Your task to perform on an android device: turn off location history Image 0: 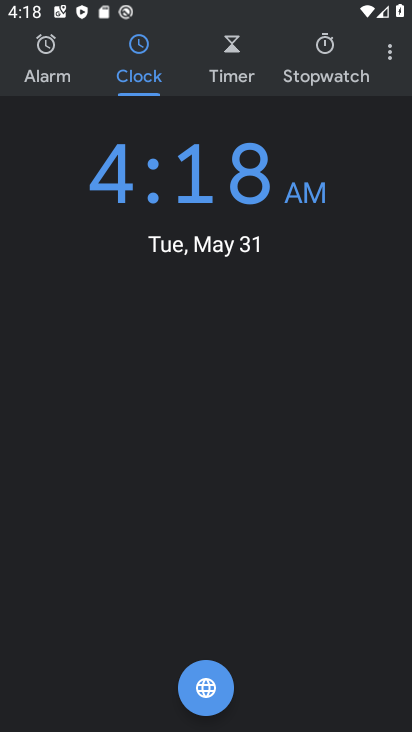
Step 0: press back button
Your task to perform on an android device: turn off location history Image 1: 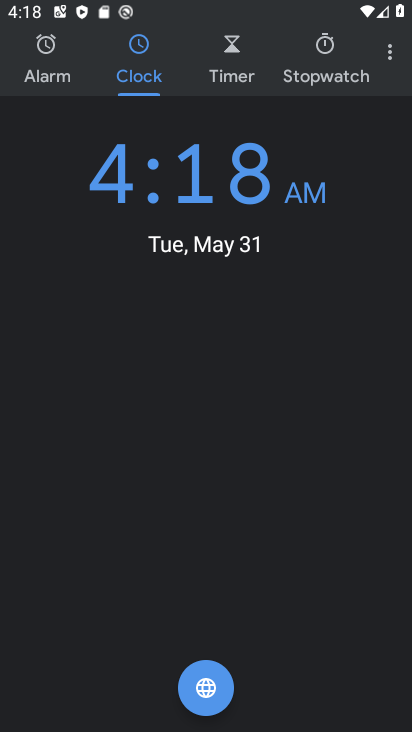
Step 1: press back button
Your task to perform on an android device: turn off location history Image 2: 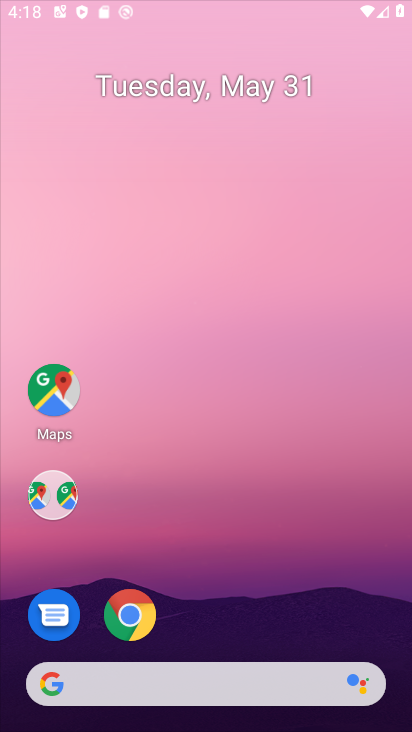
Step 2: press back button
Your task to perform on an android device: turn off location history Image 3: 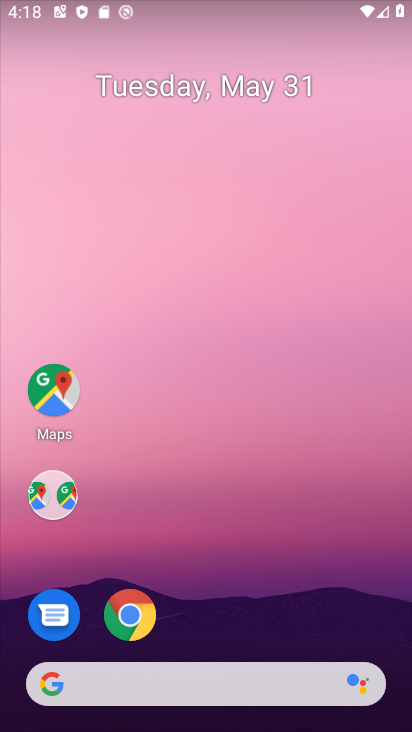
Step 3: drag from (258, 694) to (186, 209)
Your task to perform on an android device: turn off location history Image 4: 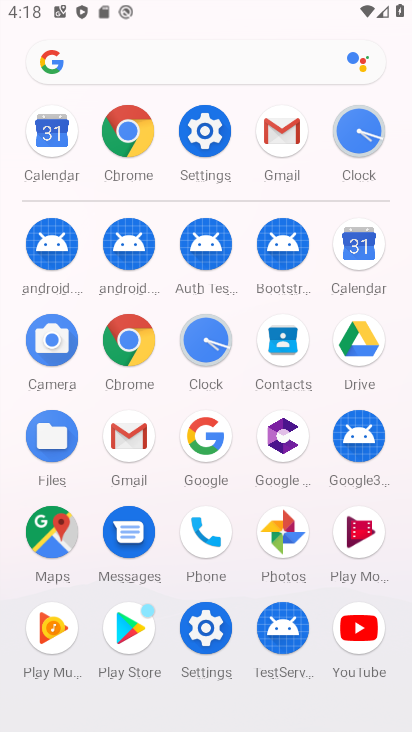
Step 4: click (192, 135)
Your task to perform on an android device: turn off location history Image 5: 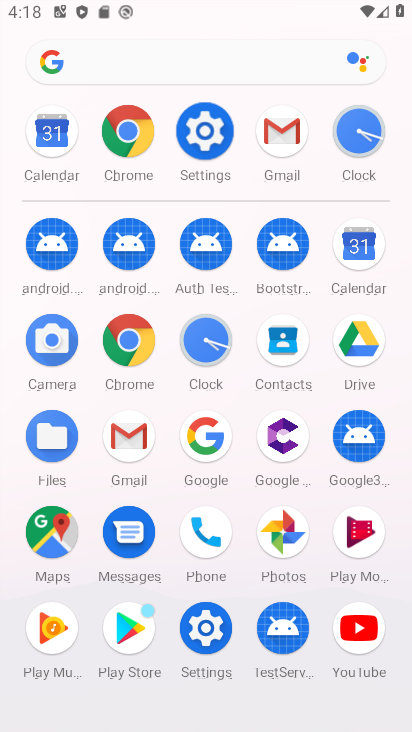
Step 5: click (203, 144)
Your task to perform on an android device: turn off location history Image 6: 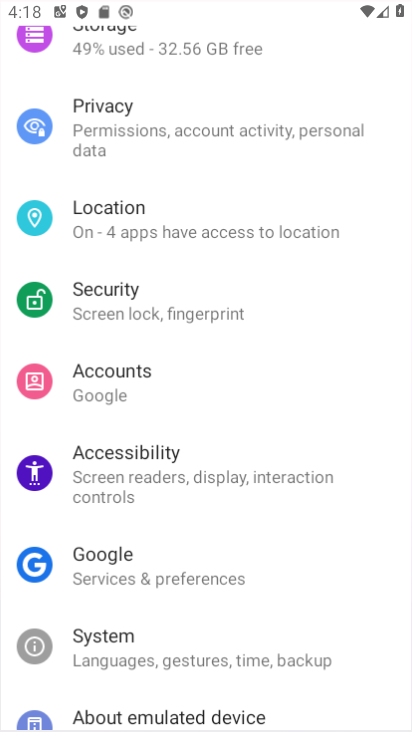
Step 6: click (202, 149)
Your task to perform on an android device: turn off location history Image 7: 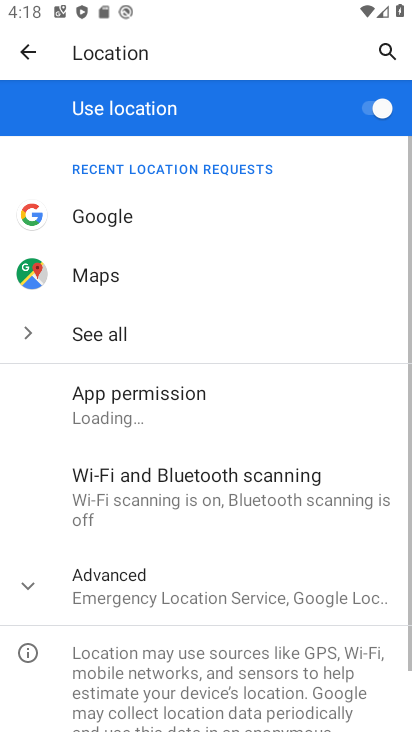
Step 7: click (27, 45)
Your task to perform on an android device: turn off location history Image 8: 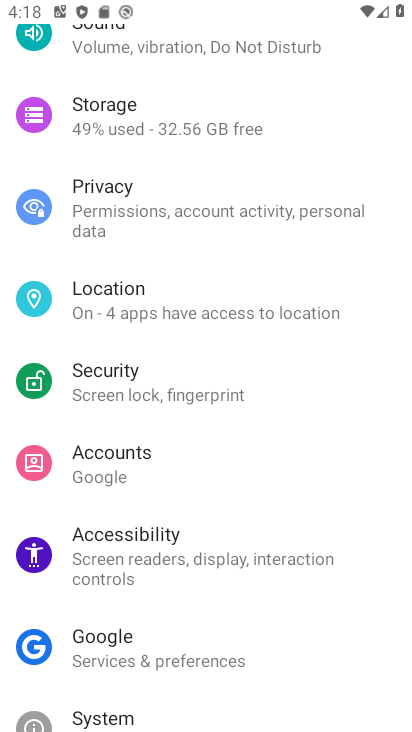
Step 8: drag from (236, 531) to (162, 122)
Your task to perform on an android device: turn off location history Image 9: 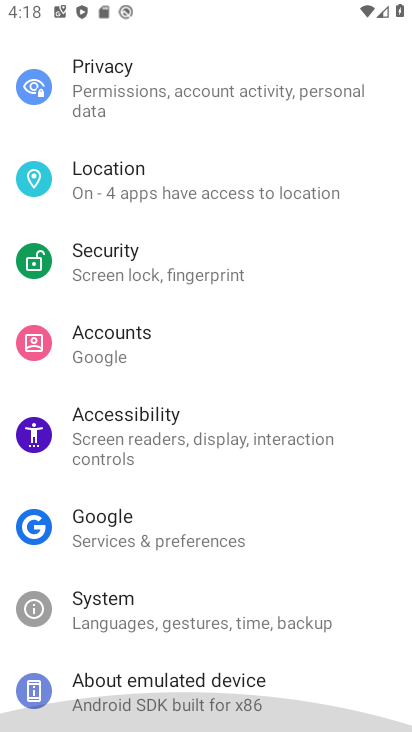
Step 9: drag from (203, 510) to (129, 164)
Your task to perform on an android device: turn off location history Image 10: 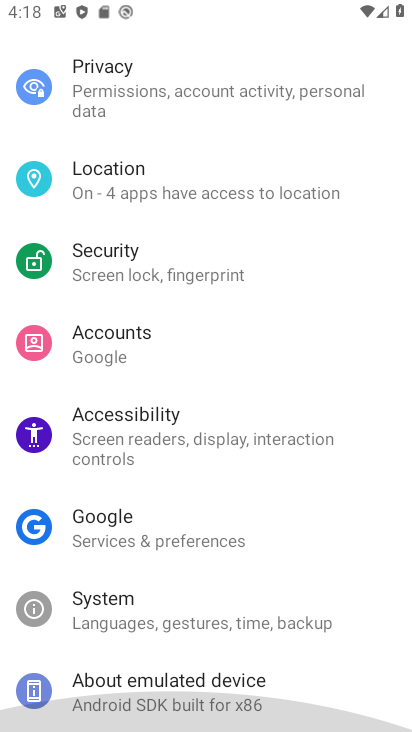
Step 10: drag from (146, 466) to (106, 116)
Your task to perform on an android device: turn off location history Image 11: 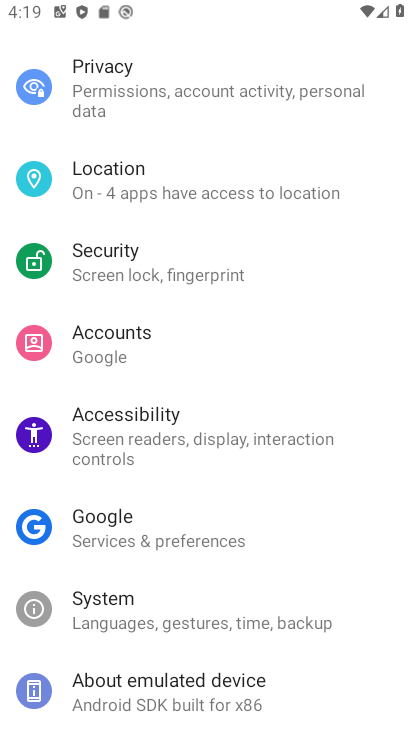
Step 11: click (112, 179)
Your task to perform on an android device: turn off location history Image 12: 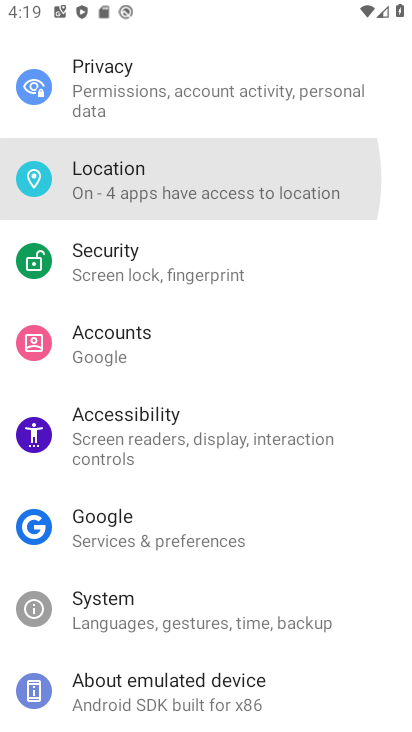
Step 12: click (113, 182)
Your task to perform on an android device: turn off location history Image 13: 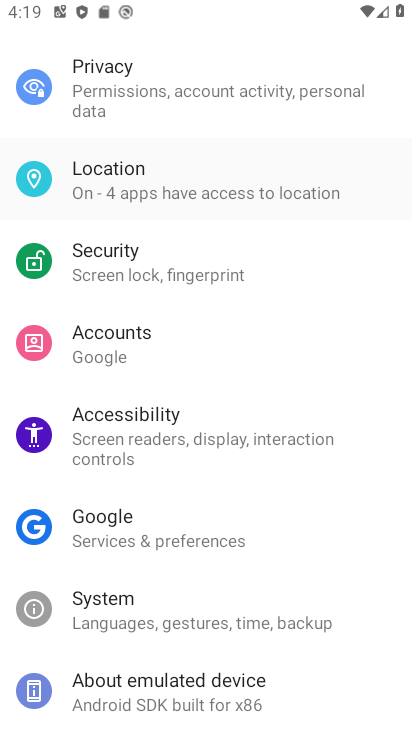
Step 13: click (113, 184)
Your task to perform on an android device: turn off location history Image 14: 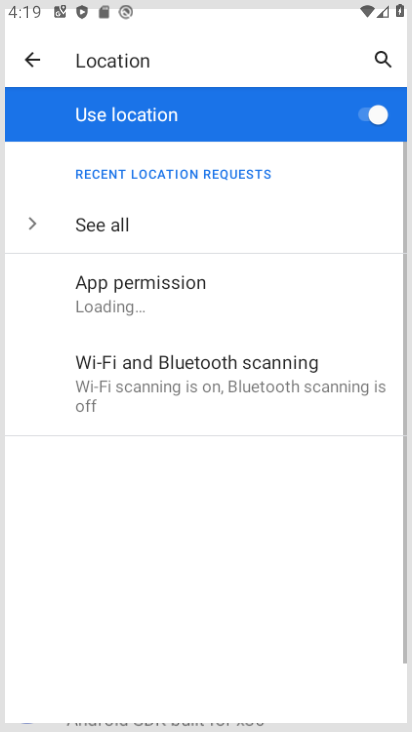
Step 14: click (113, 185)
Your task to perform on an android device: turn off location history Image 15: 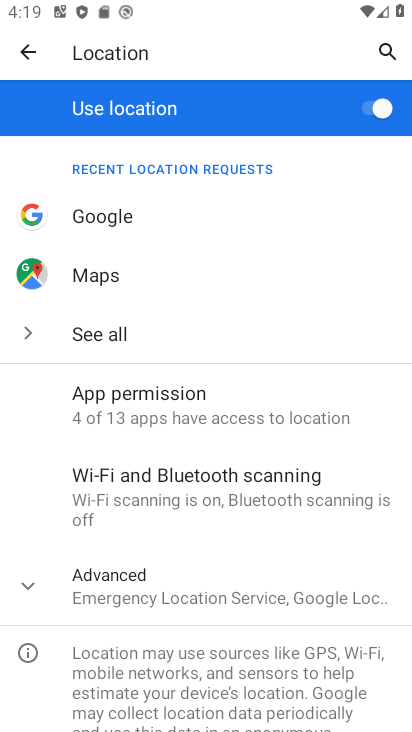
Step 15: click (119, 576)
Your task to perform on an android device: turn off location history Image 16: 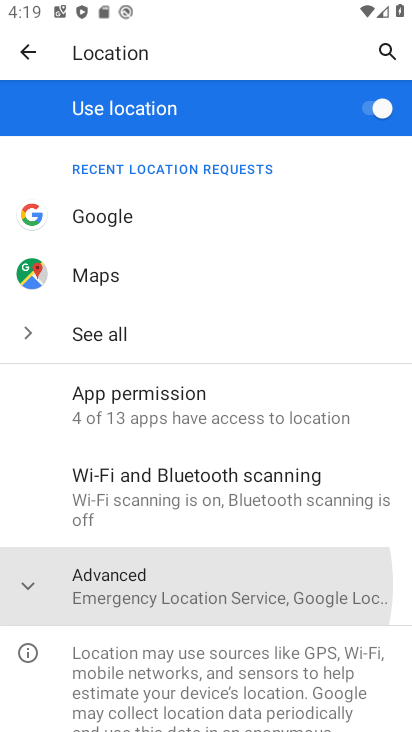
Step 16: click (119, 576)
Your task to perform on an android device: turn off location history Image 17: 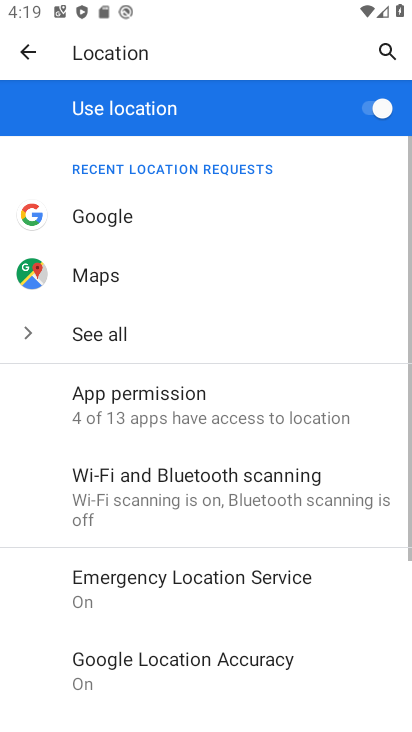
Step 17: drag from (181, 649) to (74, 218)
Your task to perform on an android device: turn off location history Image 18: 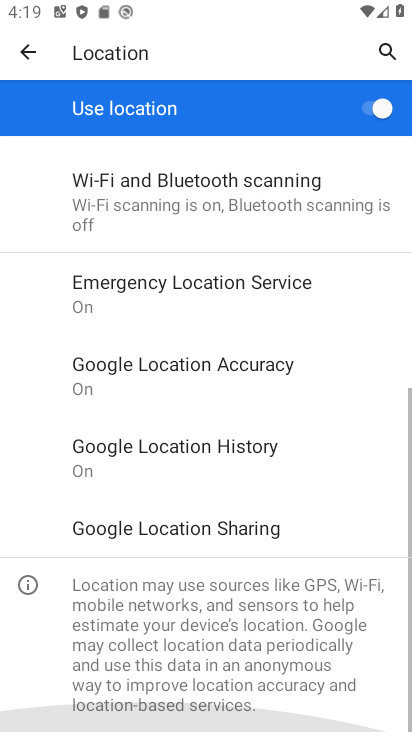
Step 18: drag from (171, 515) to (198, 206)
Your task to perform on an android device: turn off location history Image 19: 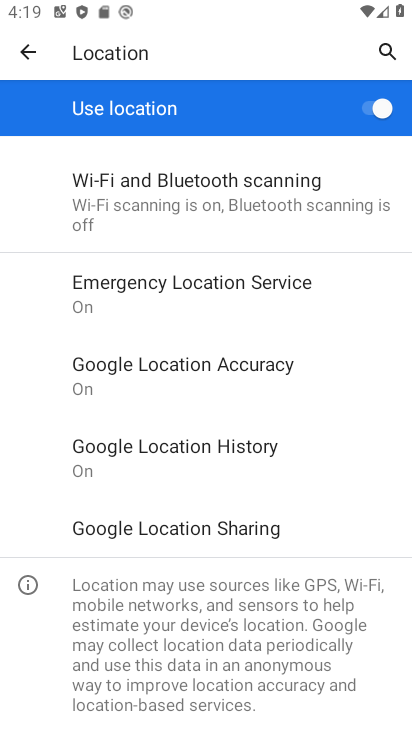
Step 19: click (129, 456)
Your task to perform on an android device: turn off location history Image 20: 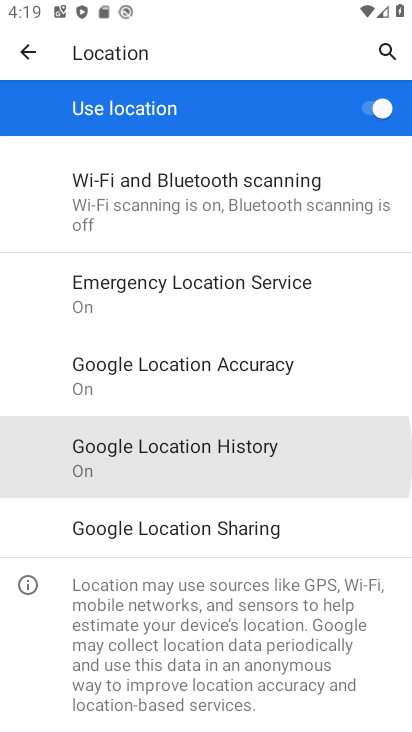
Step 20: click (128, 455)
Your task to perform on an android device: turn off location history Image 21: 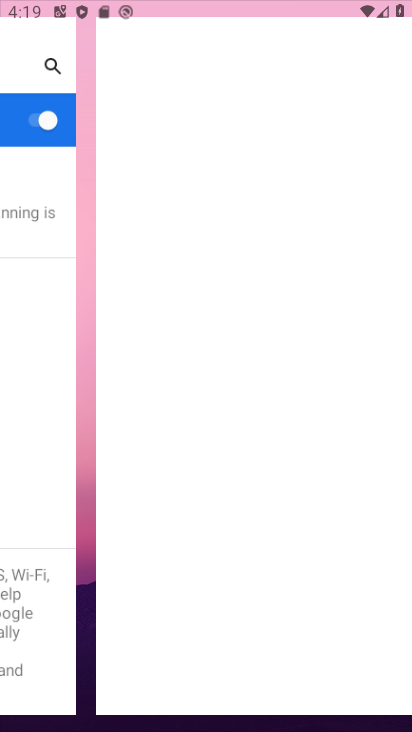
Step 21: click (129, 454)
Your task to perform on an android device: turn off location history Image 22: 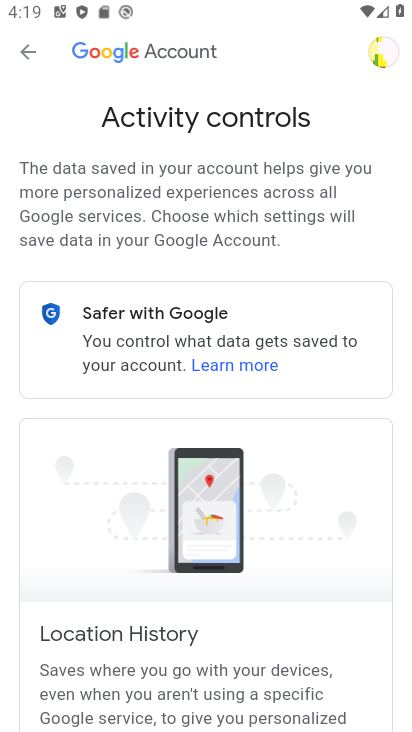
Step 22: task complete